Your task to perform on an android device: Go to Yahoo.com Image 0: 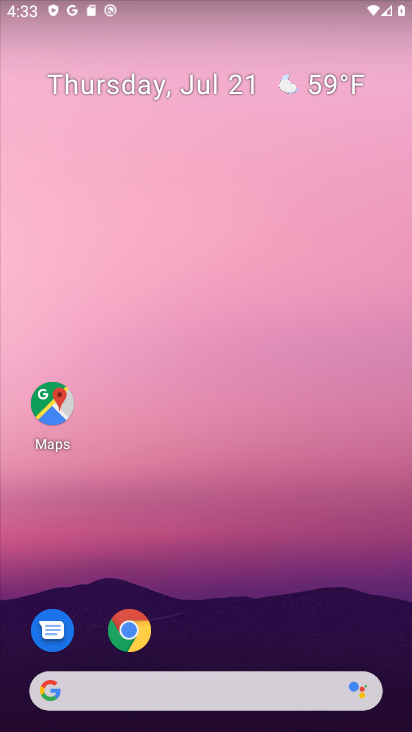
Step 0: drag from (260, 586) to (235, 179)
Your task to perform on an android device: Go to Yahoo.com Image 1: 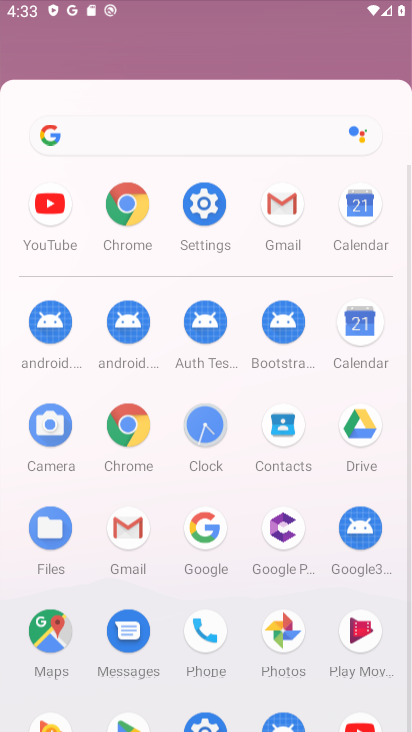
Step 1: drag from (233, 484) to (246, 58)
Your task to perform on an android device: Go to Yahoo.com Image 2: 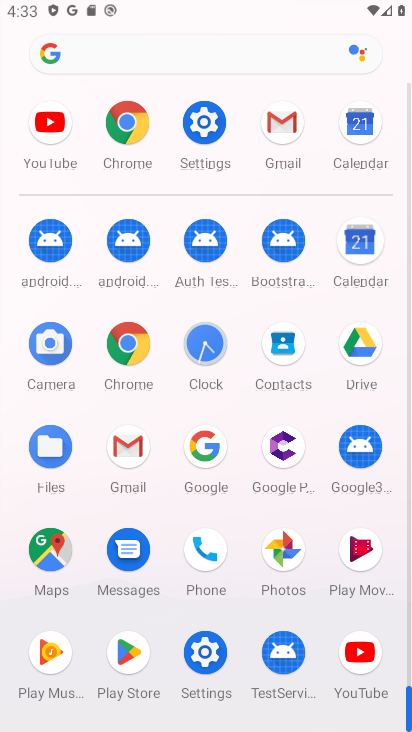
Step 2: click (126, 124)
Your task to perform on an android device: Go to Yahoo.com Image 3: 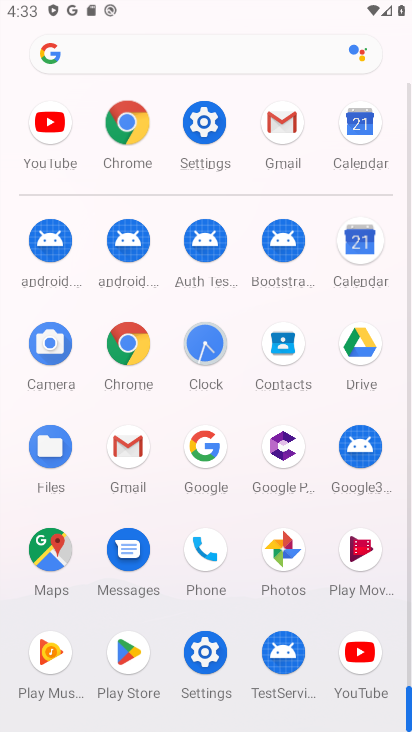
Step 3: click (126, 124)
Your task to perform on an android device: Go to Yahoo.com Image 4: 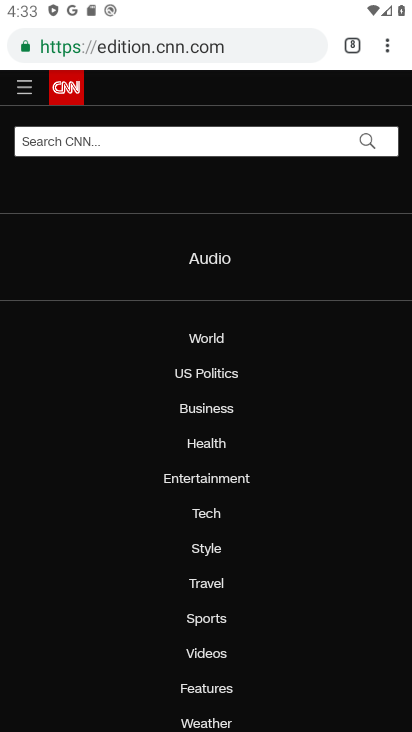
Step 4: drag from (187, 116) to (210, 352)
Your task to perform on an android device: Go to Yahoo.com Image 5: 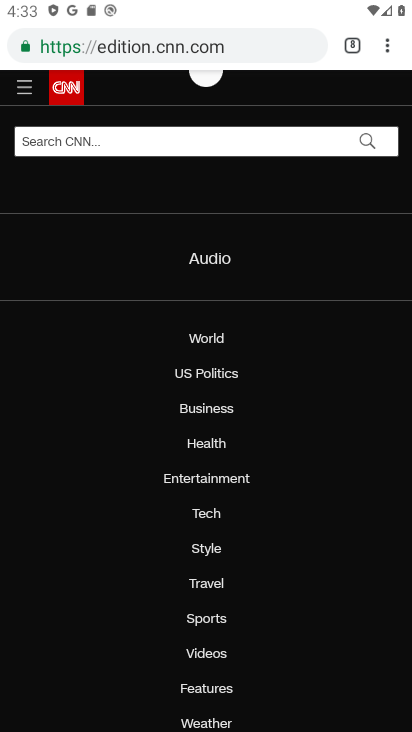
Step 5: drag from (224, 276) to (237, 439)
Your task to perform on an android device: Go to Yahoo.com Image 6: 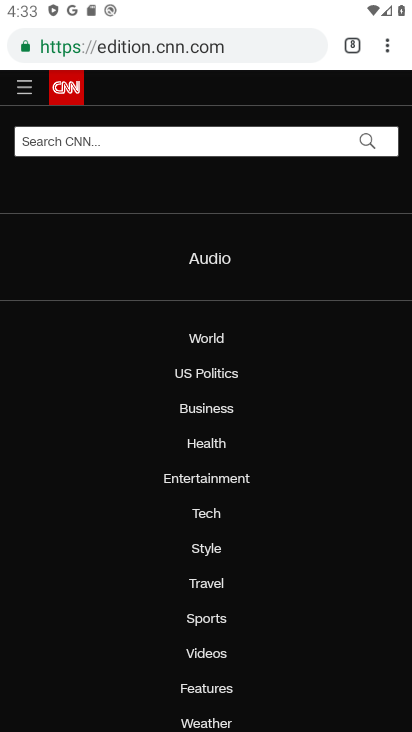
Step 6: drag from (241, 262) to (309, 659)
Your task to perform on an android device: Go to Yahoo.com Image 7: 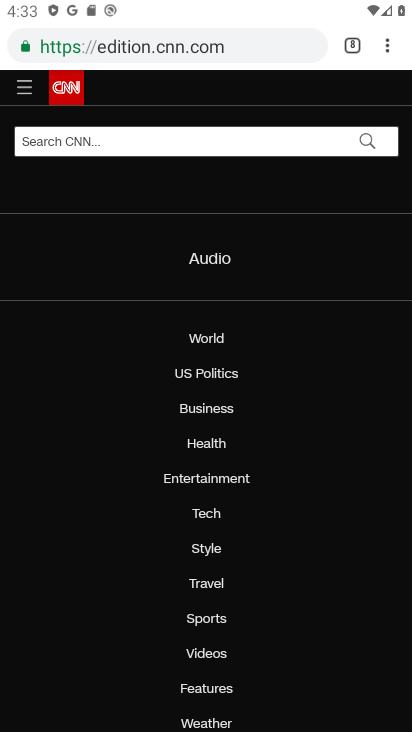
Step 7: drag from (291, 222) to (310, 326)
Your task to perform on an android device: Go to Yahoo.com Image 8: 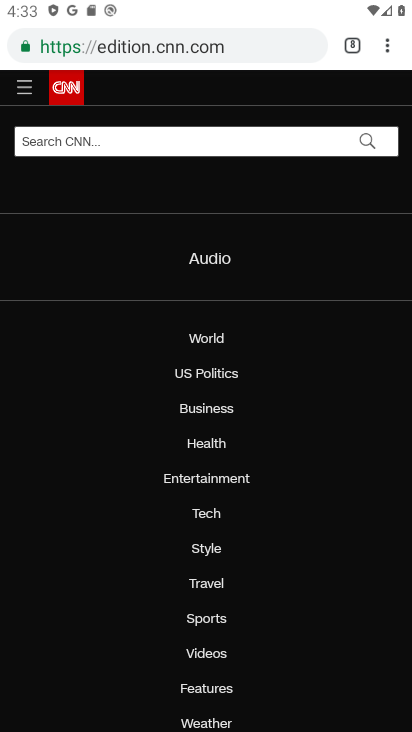
Step 8: click (395, 37)
Your task to perform on an android device: Go to Yahoo.com Image 9: 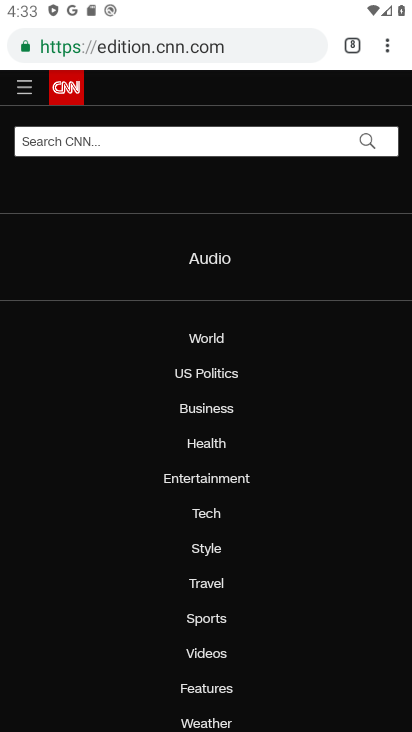
Step 9: click (395, 37)
Your task to perform on an android device: Go to Yahoo.com Image 10: 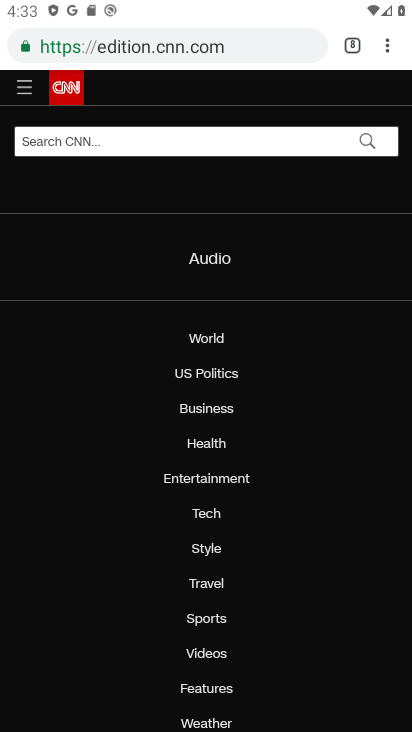
Step 10: drag from (390, 42) to (240, 93)
Your task to perform on an android device: Go to Yahoo.com Image 11: 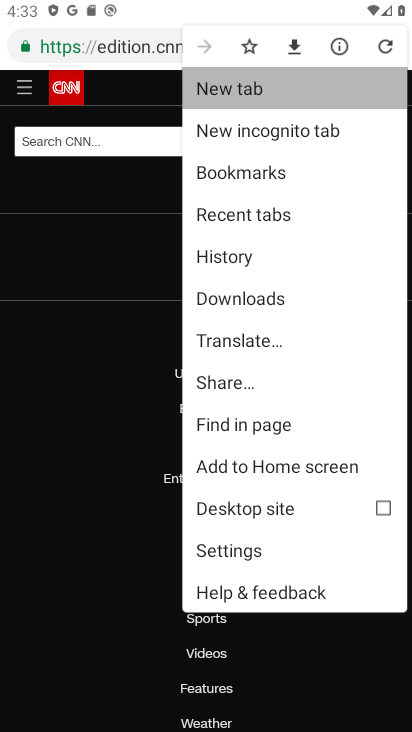
Step 11: click (239, 92)
Your task to perform on an android device: Go to Yahoo.com Image 12: 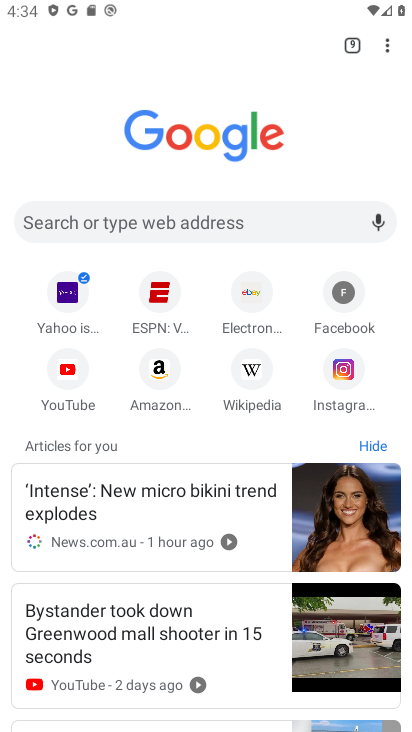
Step 12: click (73, 282)
Your task to perform on an android device: Go to Yahoo.com Image 13: 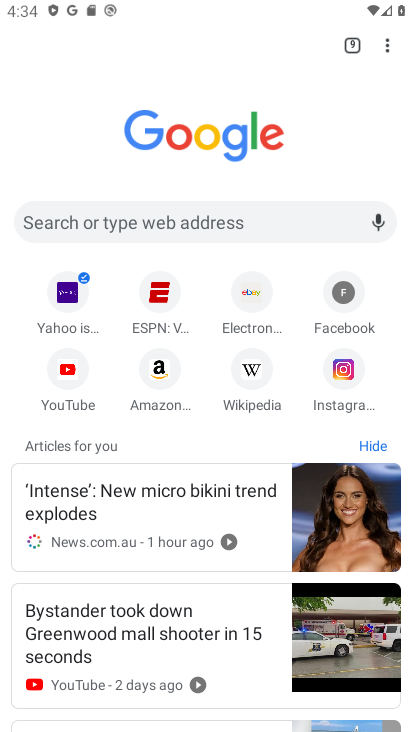
Step 13: click (55, 307)
Your task to perform on an android device: Go to Yahoo.com Image 14: 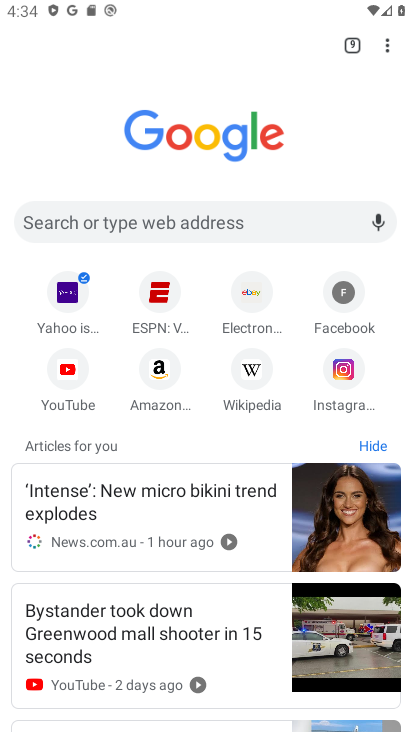
Step 14: click (61, 302)
Your task to perform on an android device: Go to Yahoo.com Image 15: 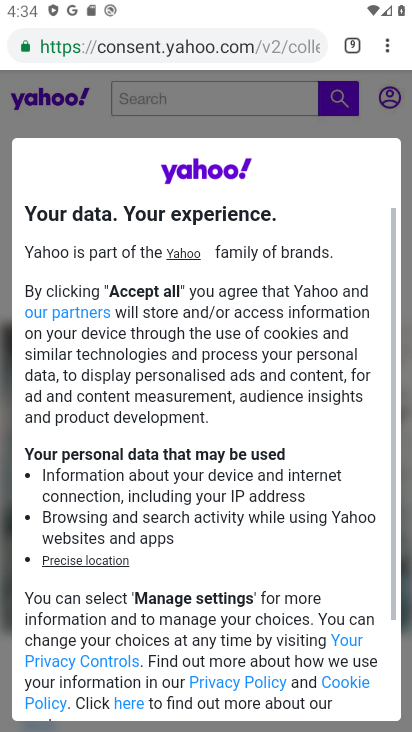
Step 15: task complete